Your task to perform on an android device: turn pop-ups on in chrome Image 0: 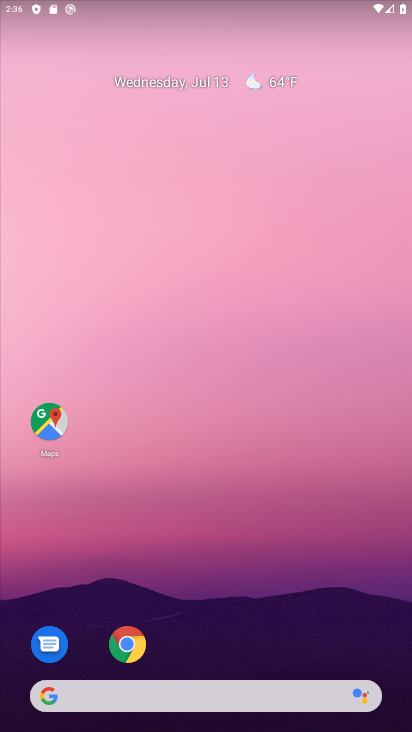
Step 0: click (125, 642)
Your task to perform on an android device: turn pop-ups on in chrome Image 1: 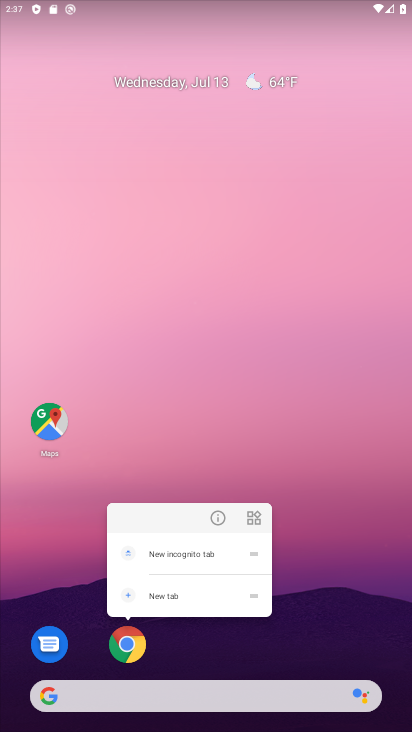
Step 1: click (125, 649)
Your task to perform on an android device: turn pop-ups on in chrome Image 2: 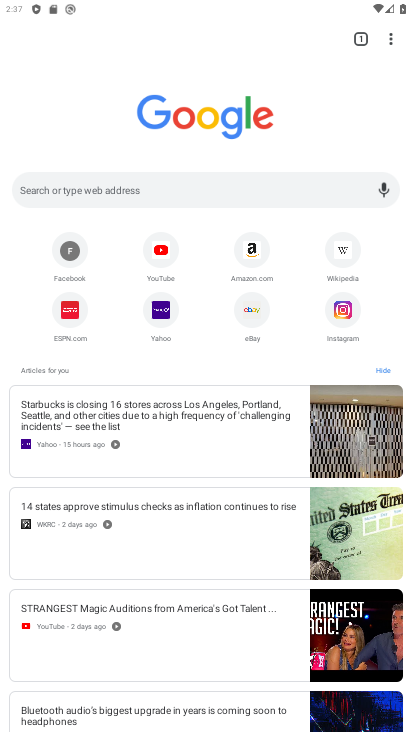
Step 2: click (392, 39)
Your task to perform on an android device: turn pop-ups on in chrome Image 3: 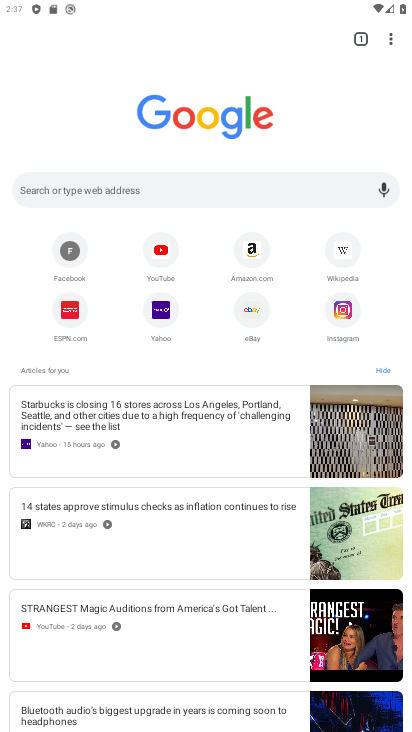
Step 3: click (405, 43)
Your task to perform on an android device: turn pop-ups on in chrome Image 4: 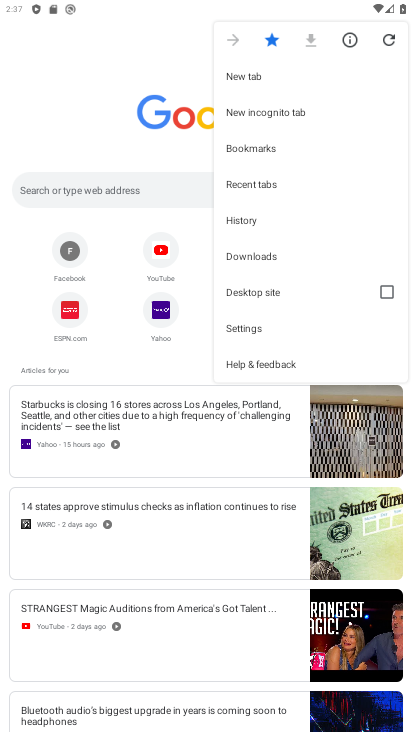
Step 4: click (274, 326)
Your task to perform on an android device: turn pop-ups on in chrome Image 5: 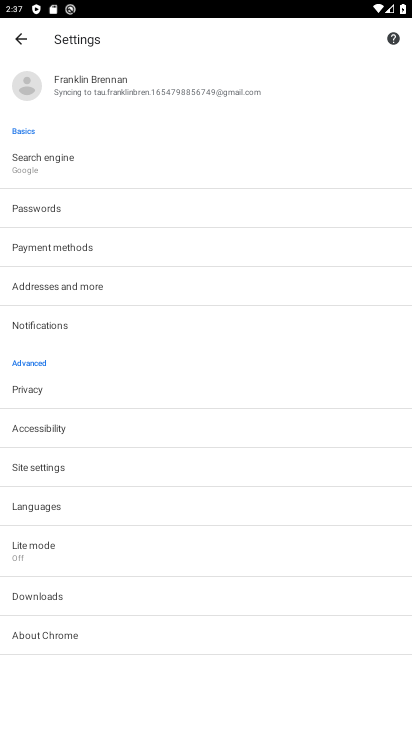
Step 5: click (71, 470)
Your task to perform on an android device: turn pop-ups on in chrome Image 6: 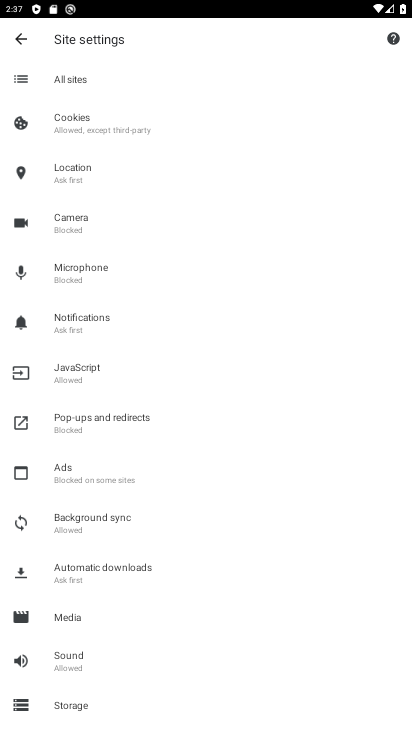
Step 6: click (111, 420)
Your task to perform on an android device: turn pop-ups on in chrome Image 7: 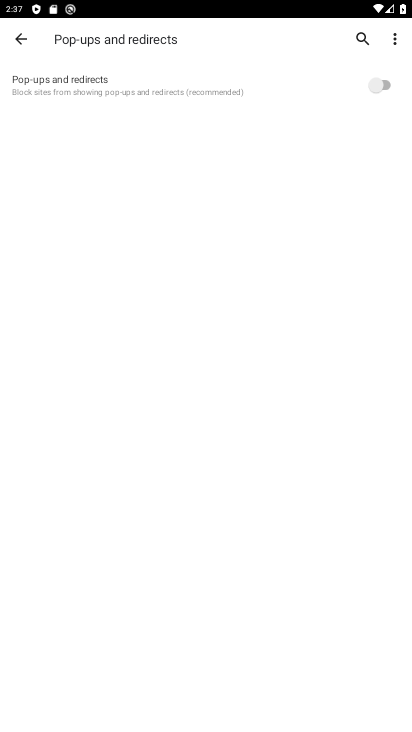
Step 7: click (383, 82)
Your task to perform on an android device: turn pop-ups on in chrome Image 8: 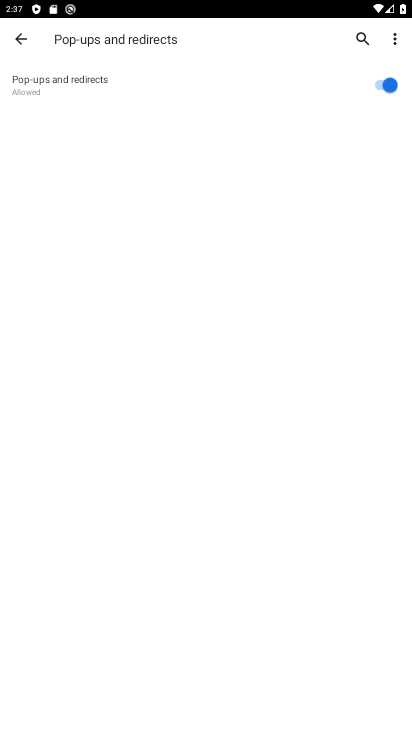
Step 8: task complete